Your task to perform on an android device: Clear all items from cart on walmart.com. Add "razer blade" to the cart on walmart.com, then select checkout. Image 0: 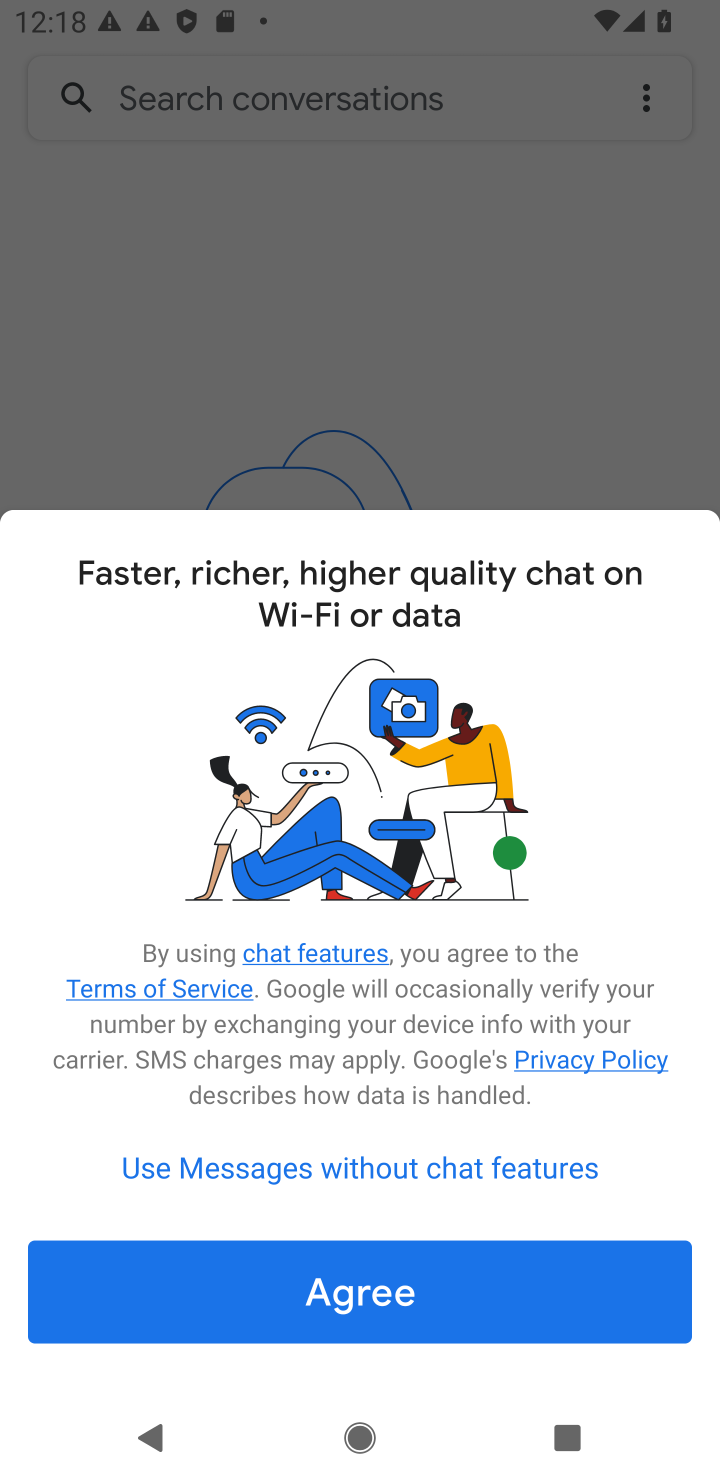
Step 0: press home button
Your task to perform on an android device: Clear all items from cart on walmart.com. Add "razer blade" to the cart on walmart.com, then select checkout. Image 1: 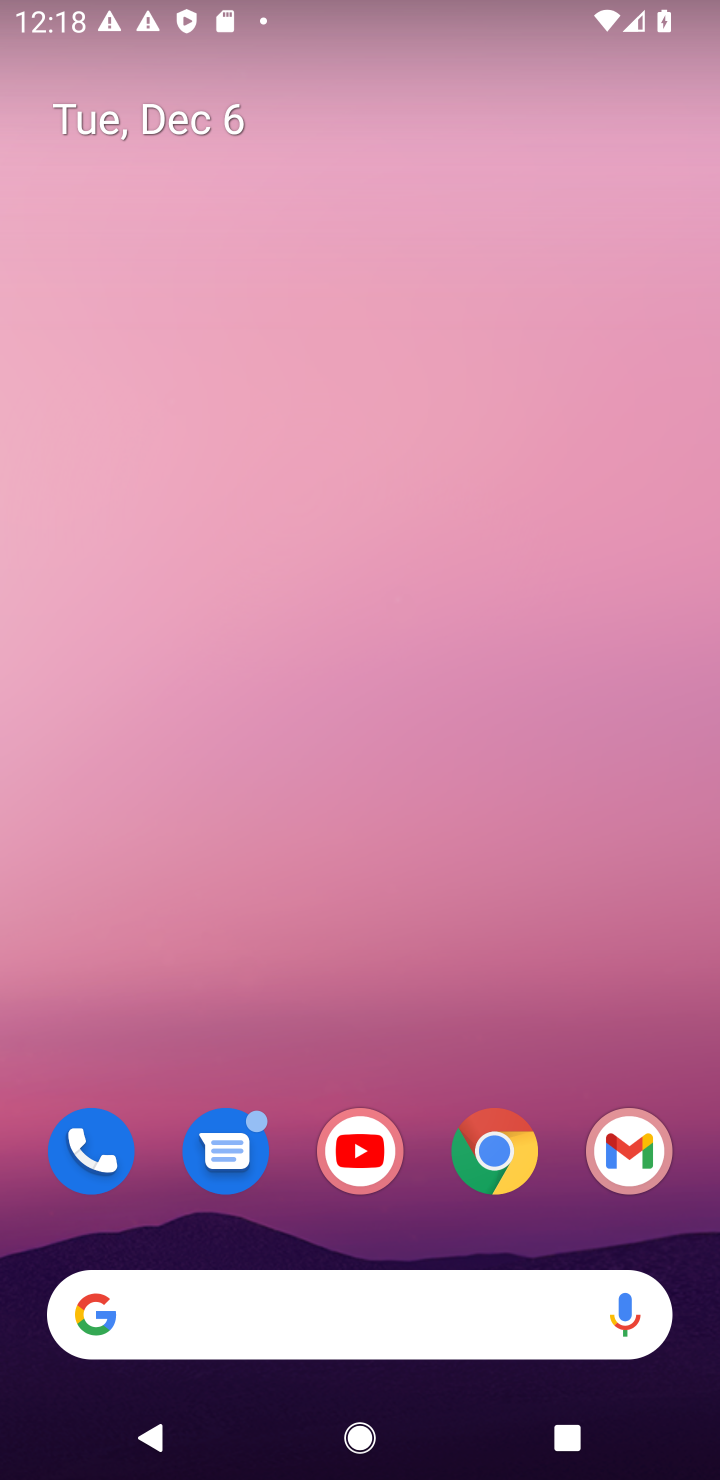
Step 1: click (497, 1171)
Your task to perform on an android device: Clear all items from cart on walmart.com. Add "razer blade" to the cart on walmart.com, then select checkout. Image 2: 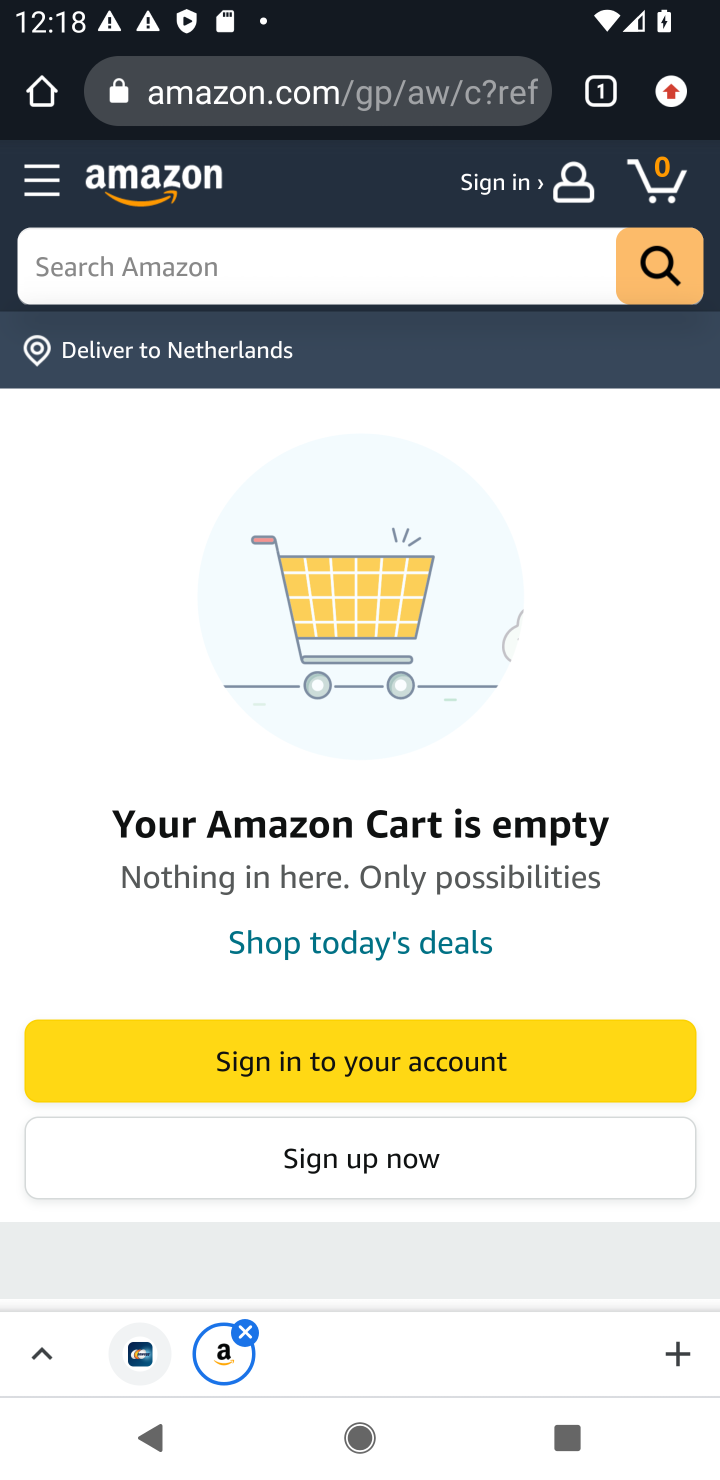
Step 2: click (263, 108)
Your task to perform on an android device: Clear all items from cart on walmart.com. Add "razer blade" to the cart on walmart.com, then select checkout. Image 3: 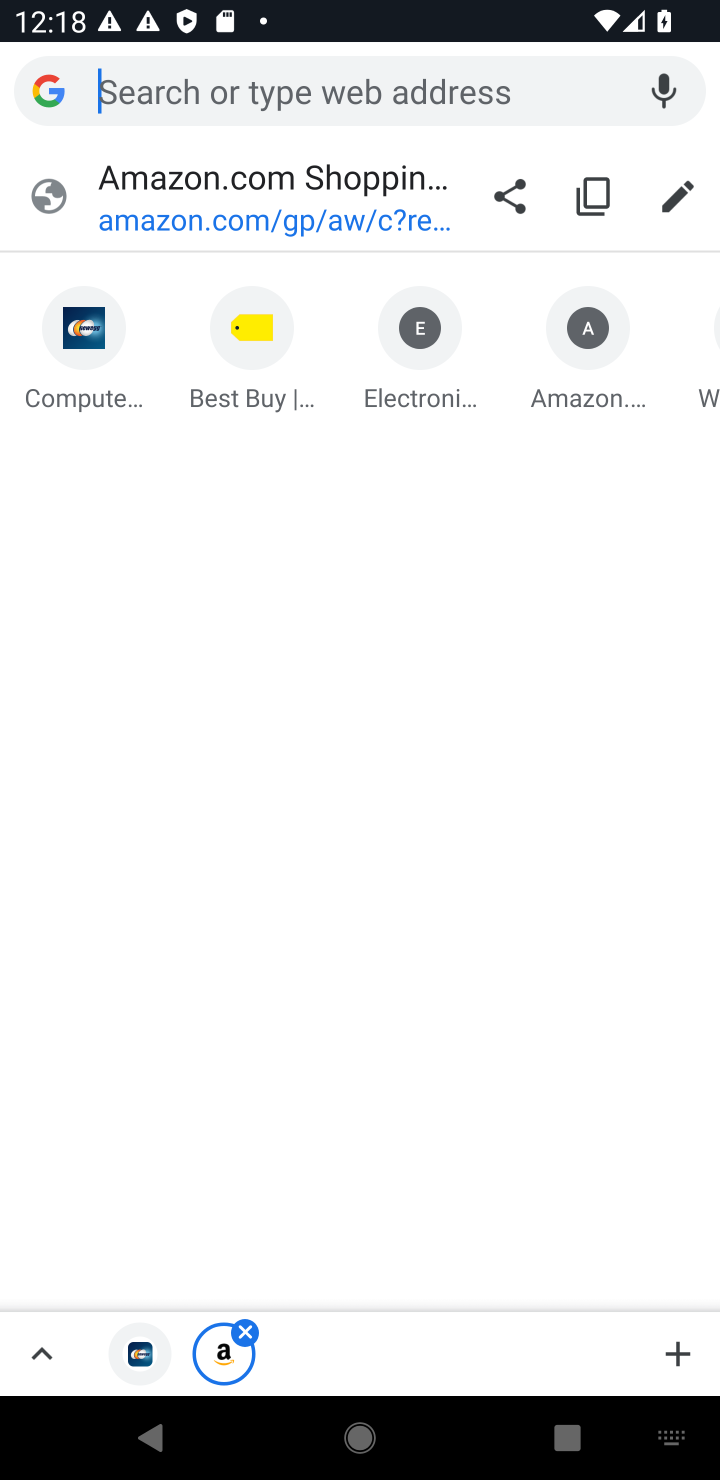
Step 3: type "walmart.com"
Your task to perform on an android device: Clear all items from cart on walmart.com. Add "razer blade" to the cart on walmart.com, then select checkout. Image 4: 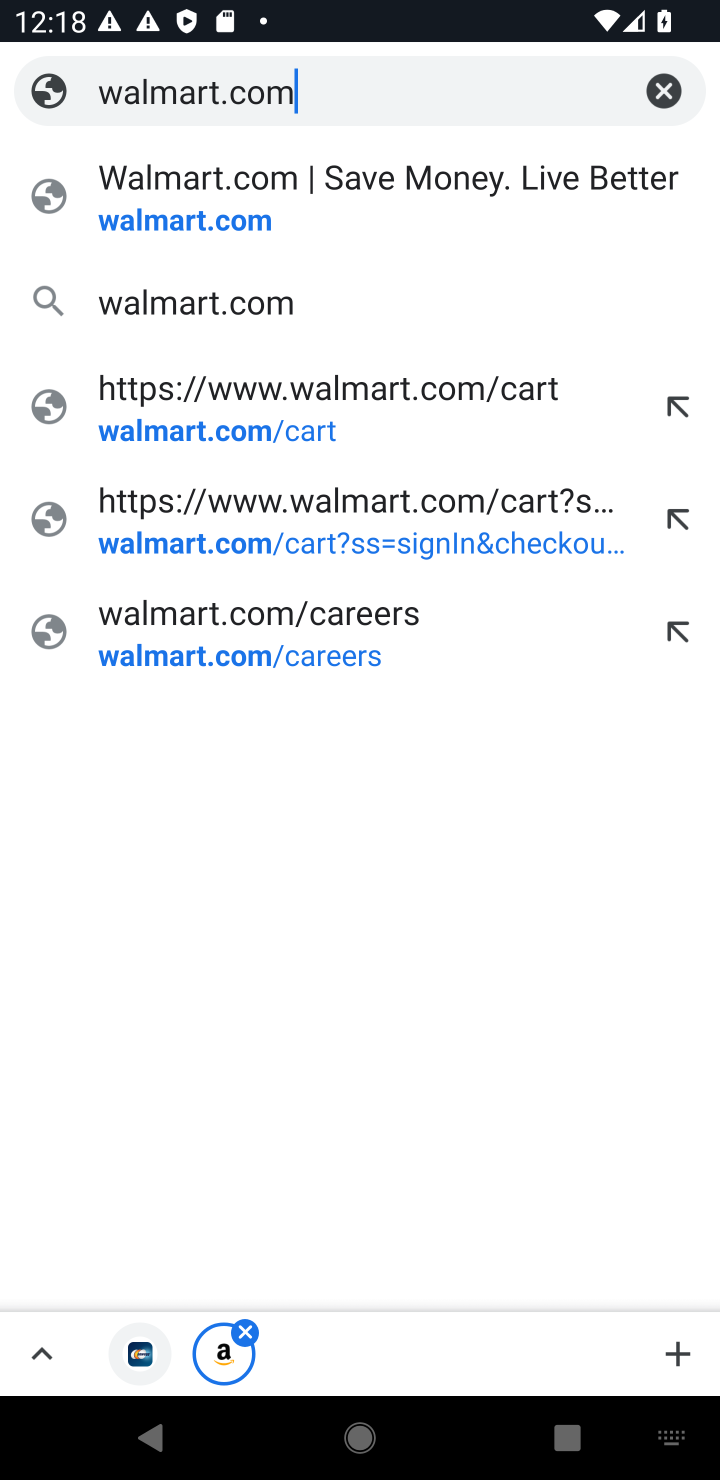
Step 4: click (177, 229)
Your task to perform on an android device: Clear all items from cart on walmart.com. Add "razer blade" to the cart on walmart.com, then select checkout. Image 5: 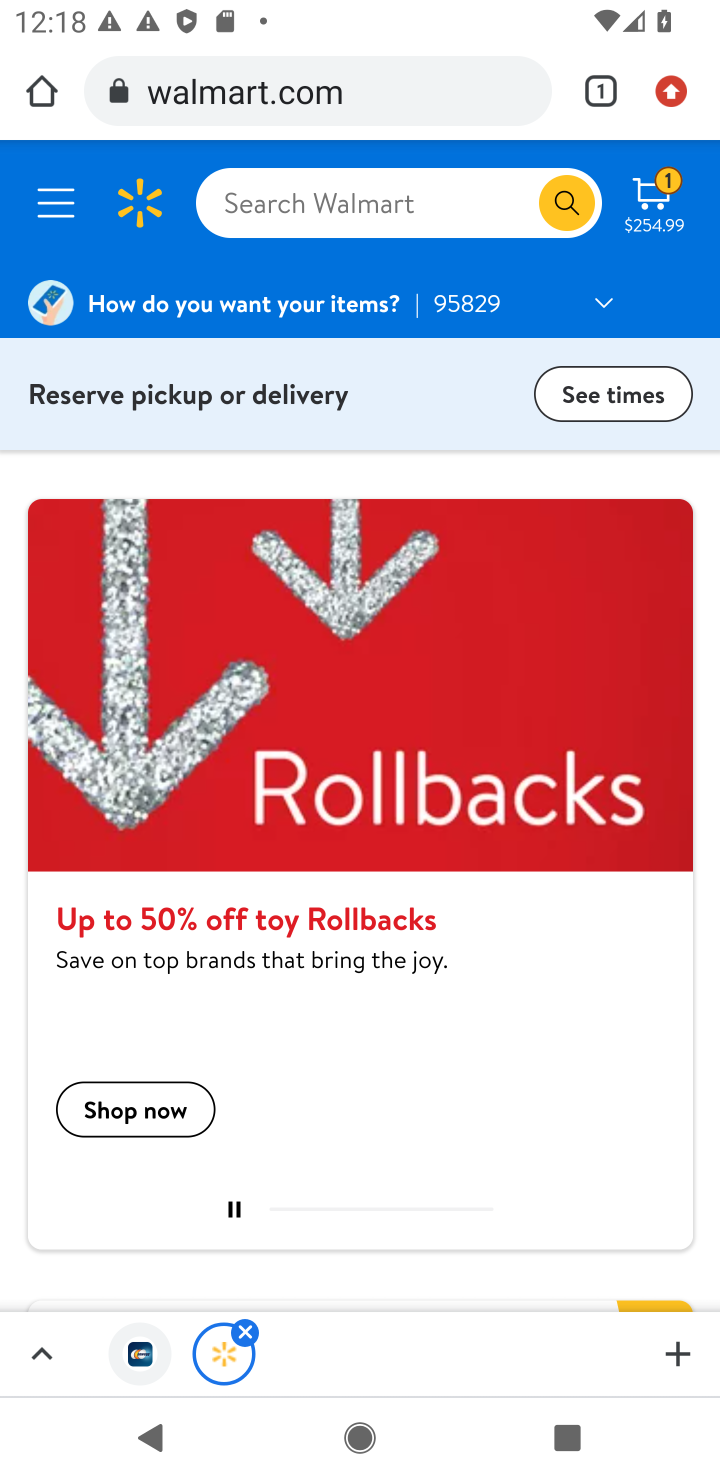
Step 5: click (658, 209)
Your task to perform on an android device: Clear all items from cart on walmart.com. Add "razer blade" to the cart on walmart.com, then select checkout. Image 6: 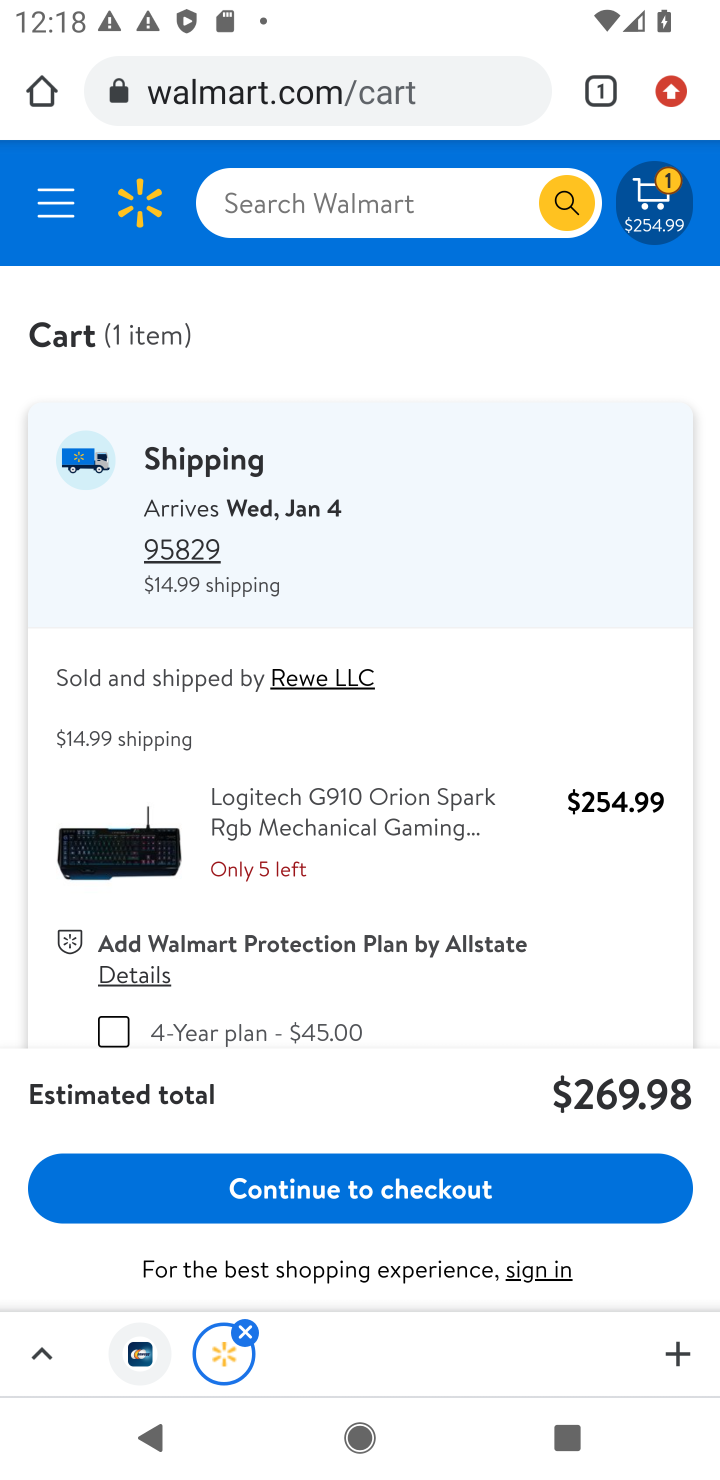
Step 6: drag from (450, 971) to (416, 365)
Your task to perform on an android device: Clear all items from cart on walmart.com. Add "razer blade" to the cart on walmart.com, then select checkout. Image 7: 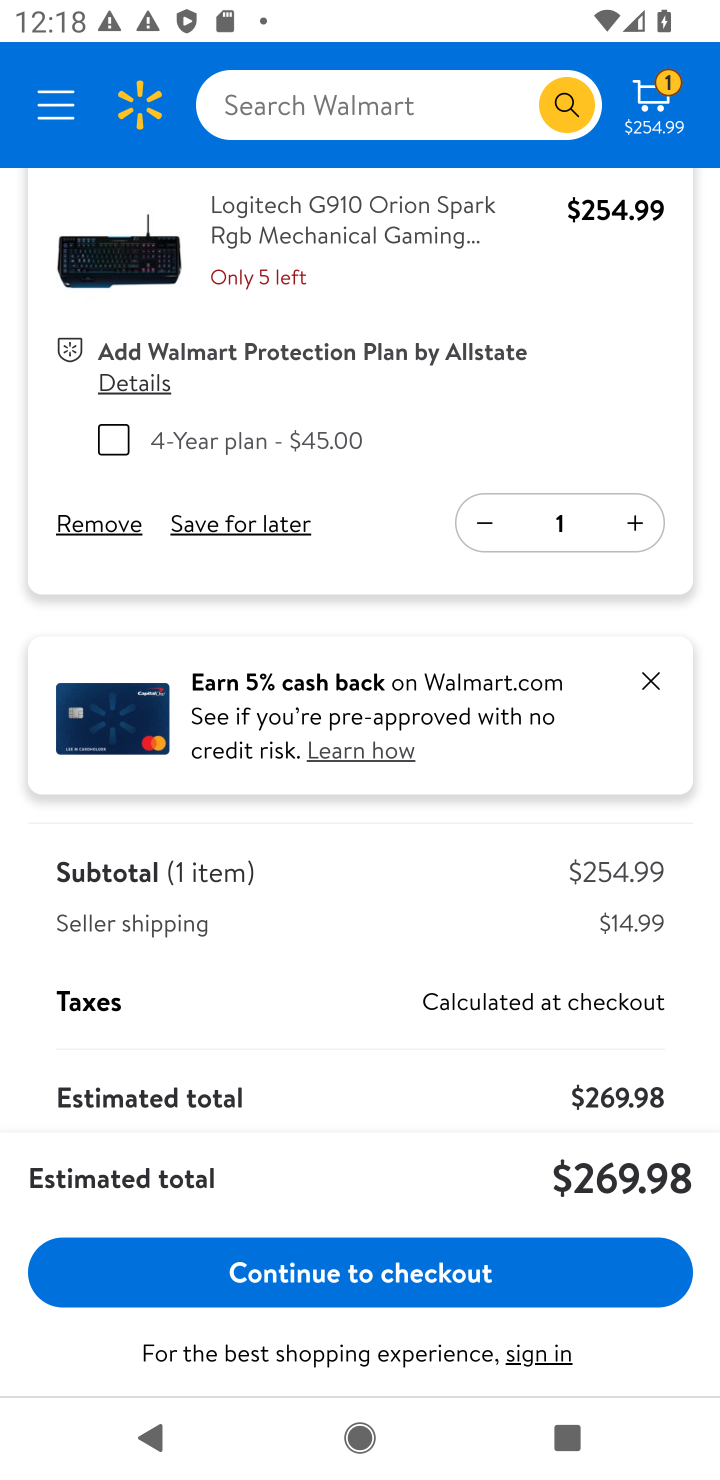
Step 7: click (84, 518)
Your task to perform on an android device: Clear all items from cart on walmart.com. Add "razer blade" to the cart on walmart.com, then select checkout. Image 8: 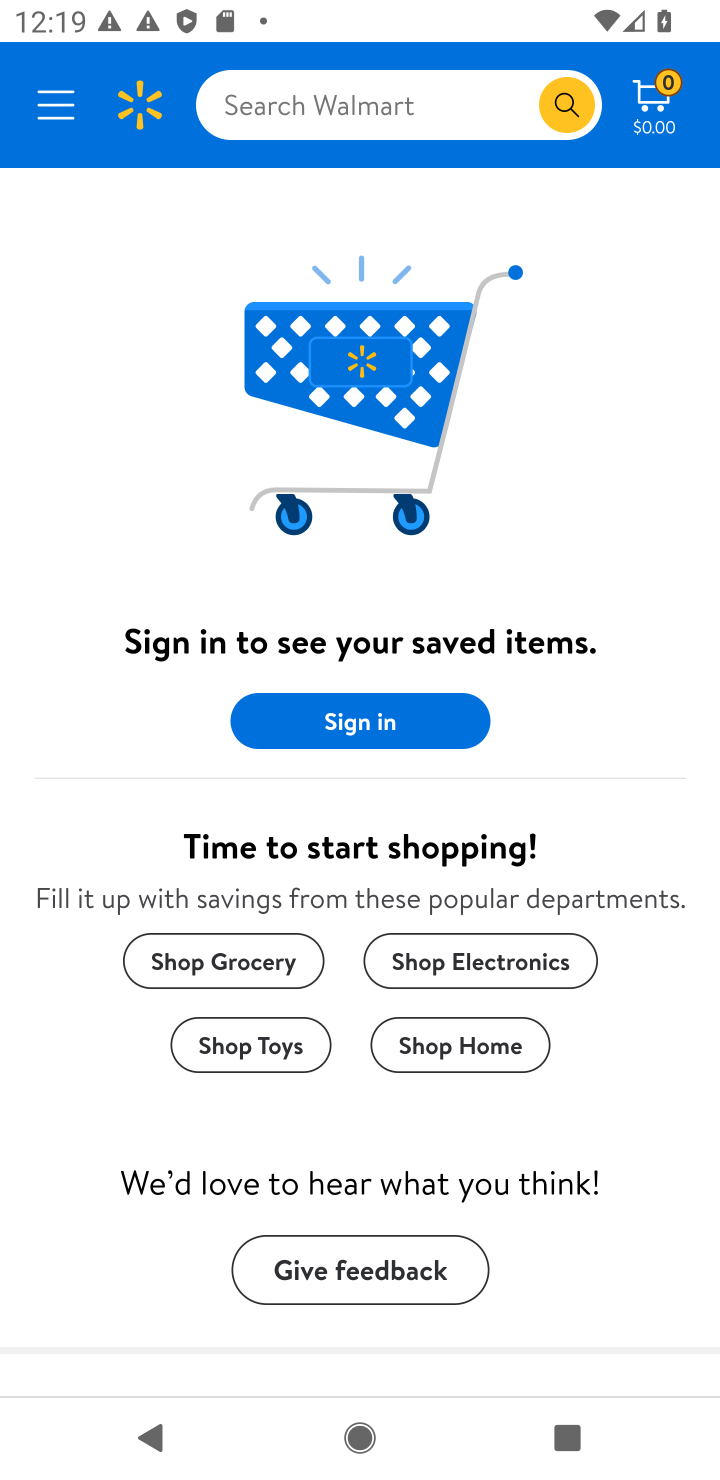
Step 8: click (304, 105)
Your task to perform on an android device: Clear all items from cart on walmart.com. Add "razer blade" to the cart on walmart.com, then select checkout. Image 9: 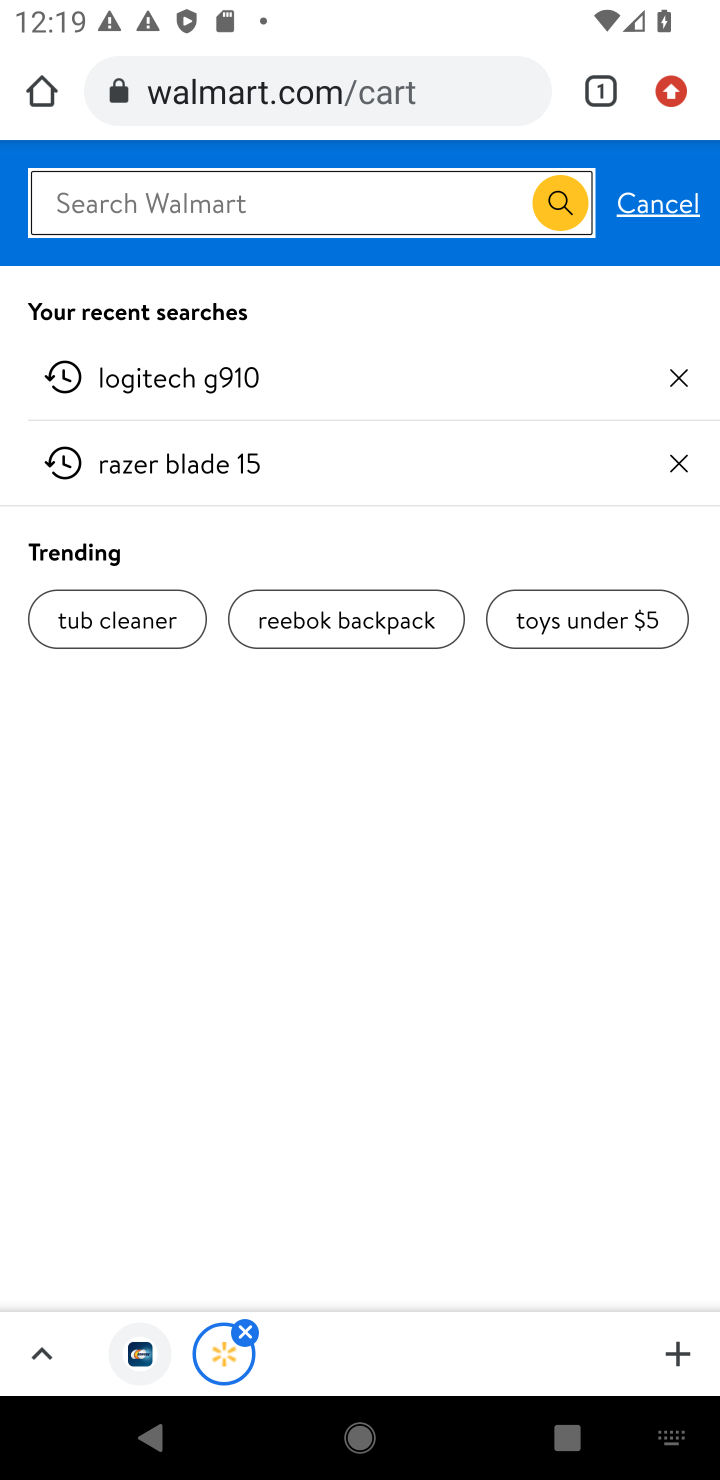
Step 9: type "razer blade"
Your task to perform on an android device: Clear all items from cart on walmart.com. Add "razer blade" to the cart on walmart.com, then select checkout. Image 10: 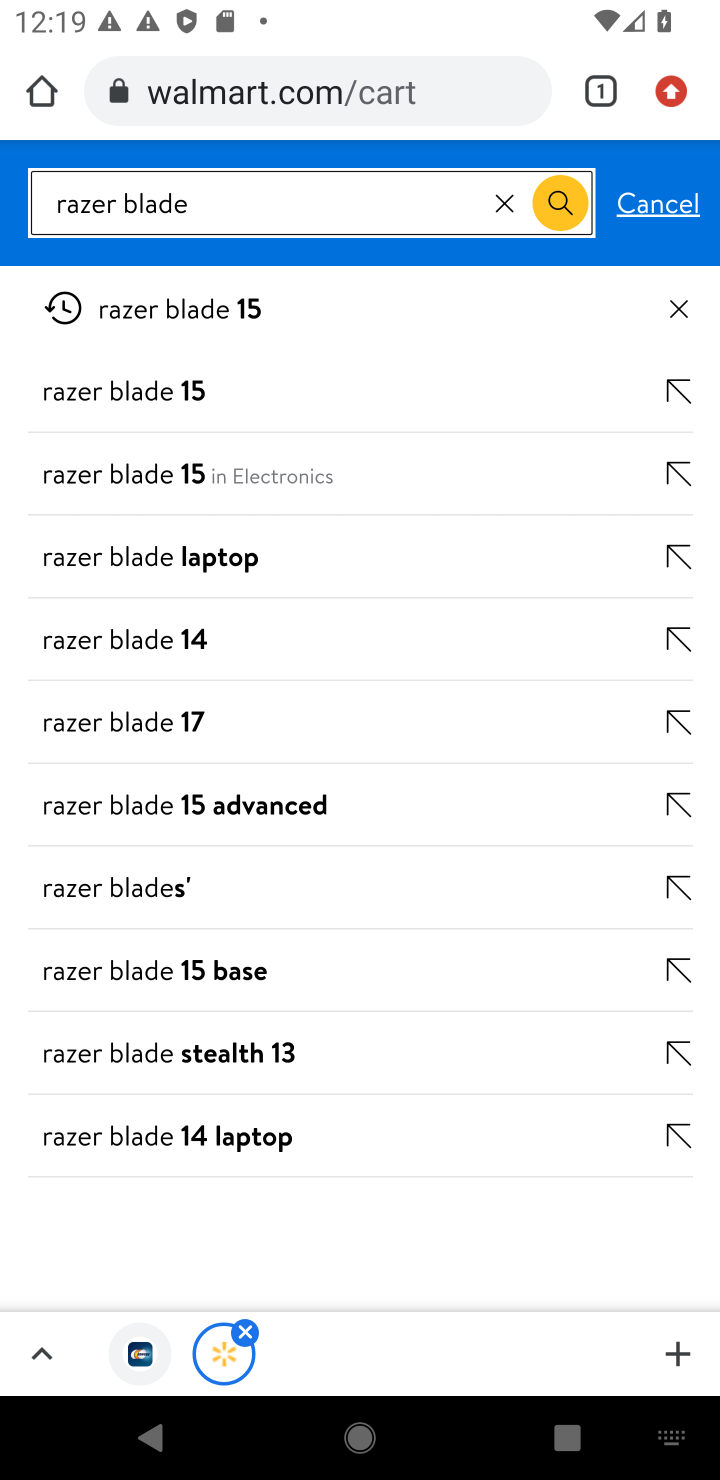
Step 10: click (236, 312)
Your task to perform on an android device: Clear all items from cart on walmart.com. Add "razer blade" to the cart on walmart.com, then select checkout. Image 11: 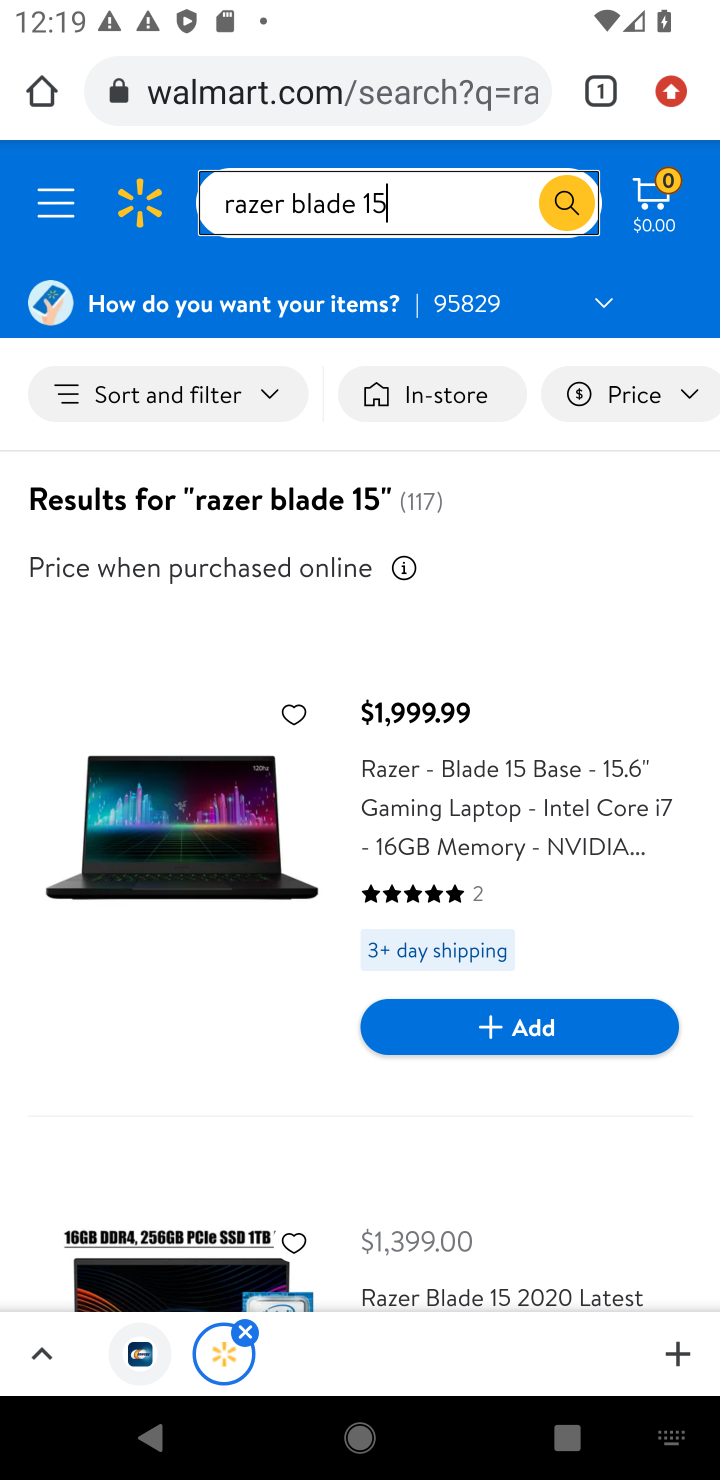
Step 11: click (501, 1019)
Your task to perform on an android device: Clear all items from cart on walmart.com. Add "razer blade" to the cart on walmart.com, then select checkout. Image 12: 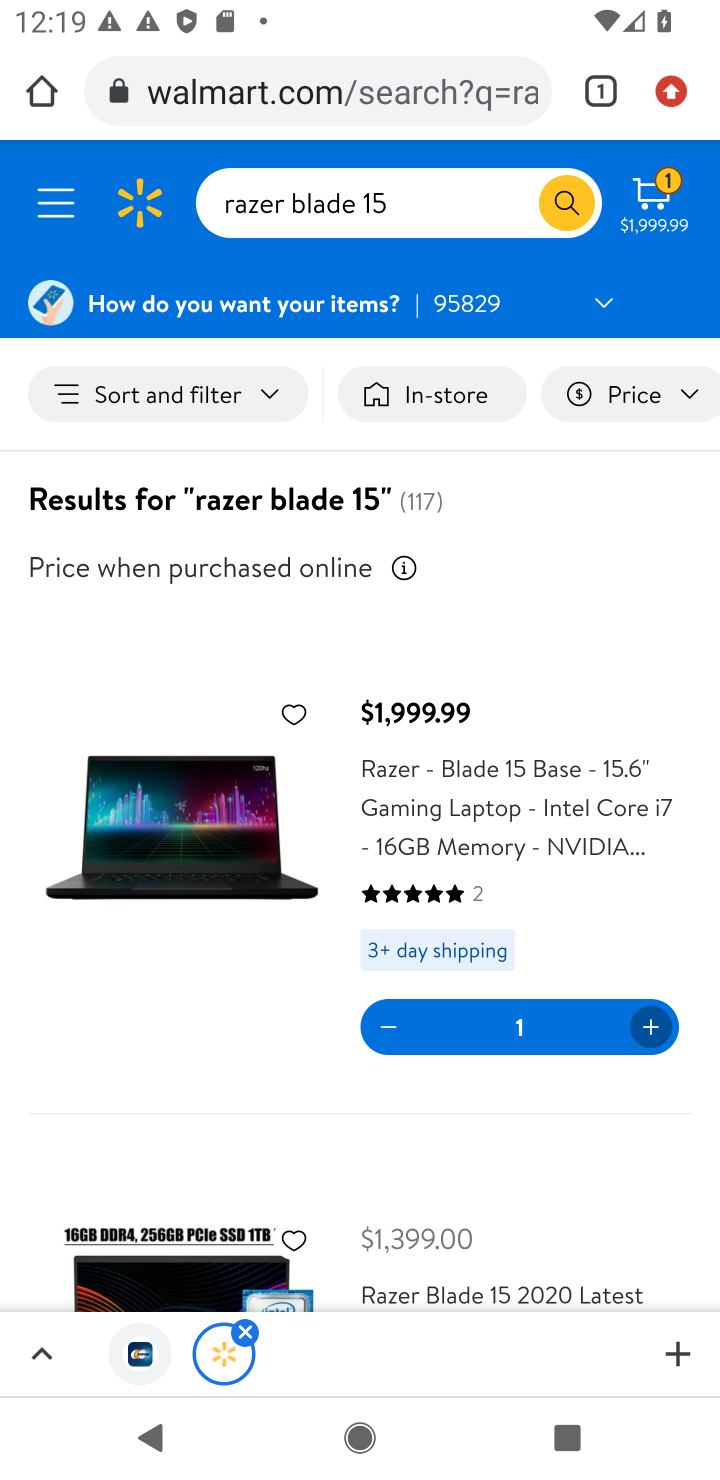
Step 12: click (658, 212)
Your task to perform on an android device: Clear all items from cart on walmart.com. Add "razer blade" to the cart on walmart.com, then select checkout. Image 13: 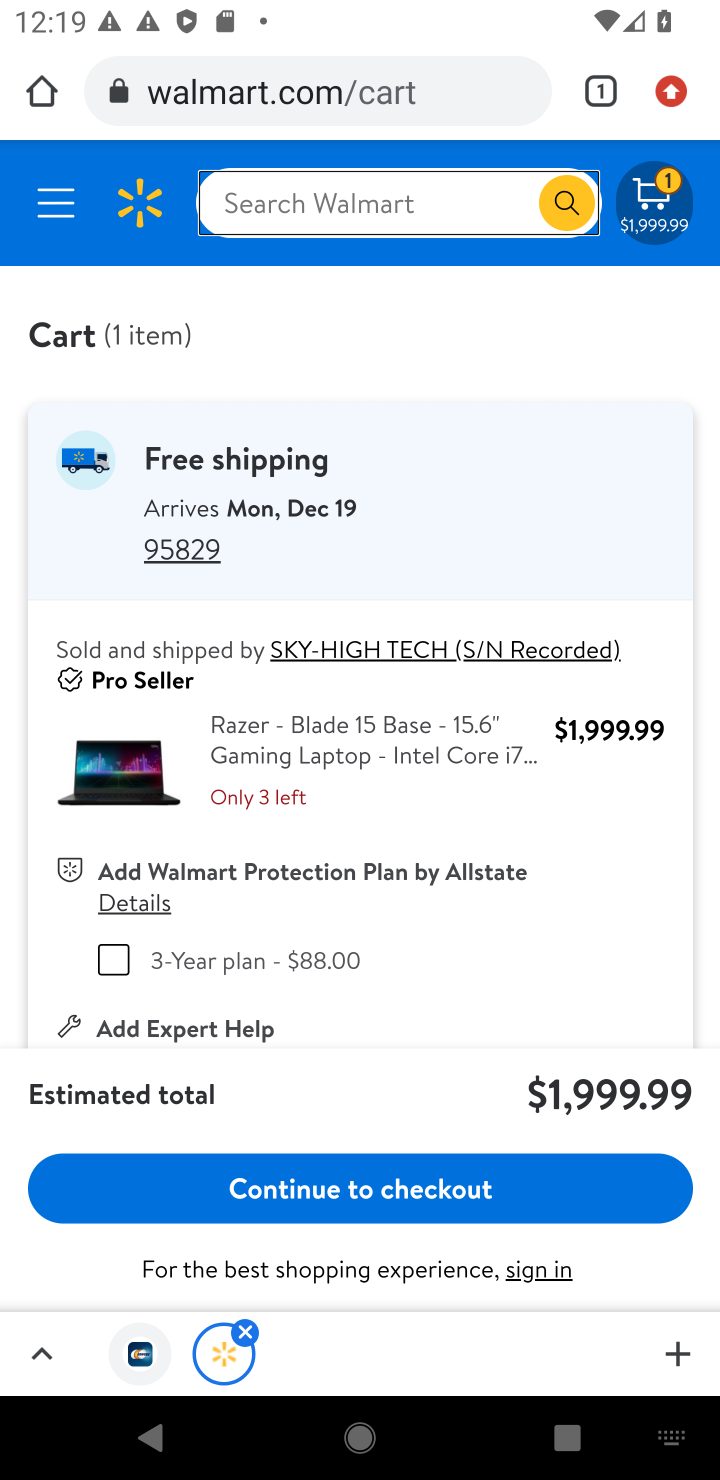
Step 13: click (342, 1197)
Your task to perform on an android device: Clear all items from cart on walmart.com. Add "razer blade" to the cart on walmart.com, then select checkout. Image 14: 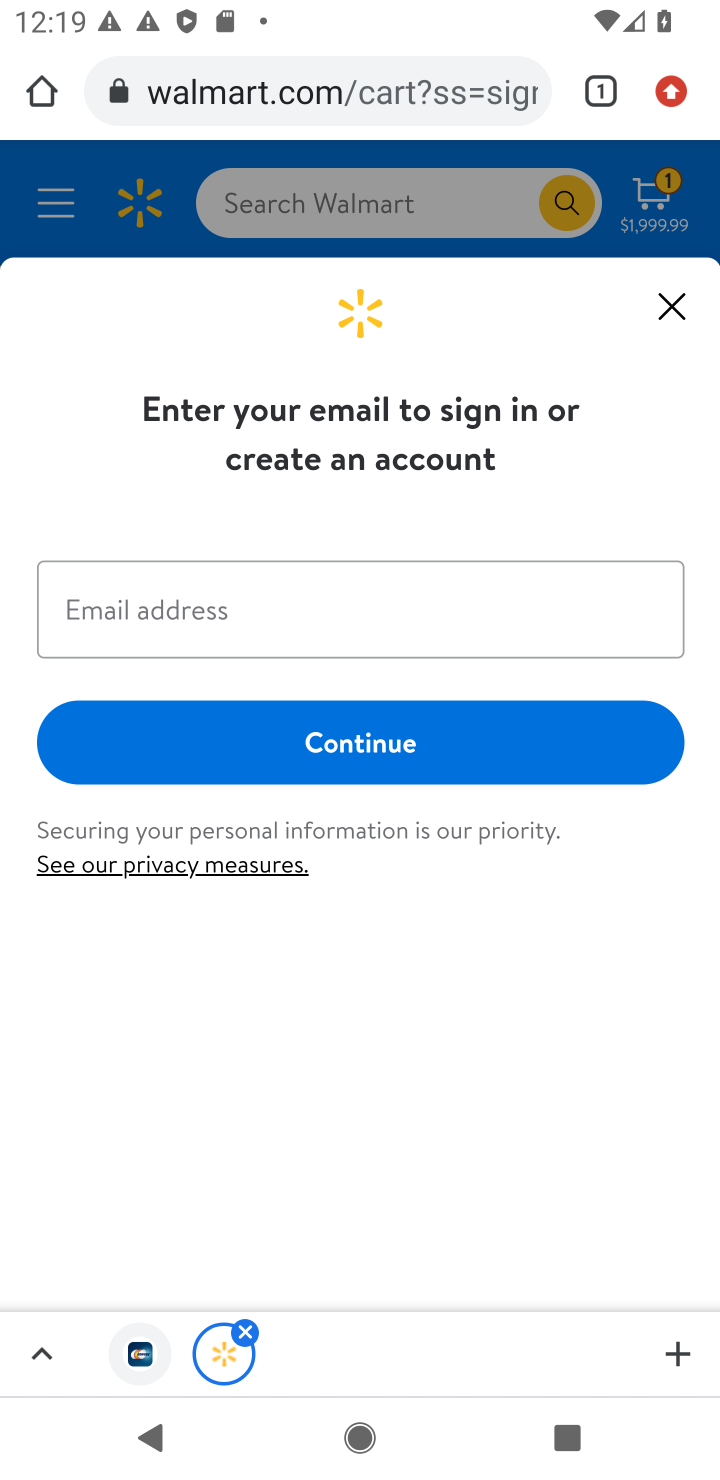
Step 14: task complete